Your task to perform on an android device: change notification settings in the gmail app Image 0: 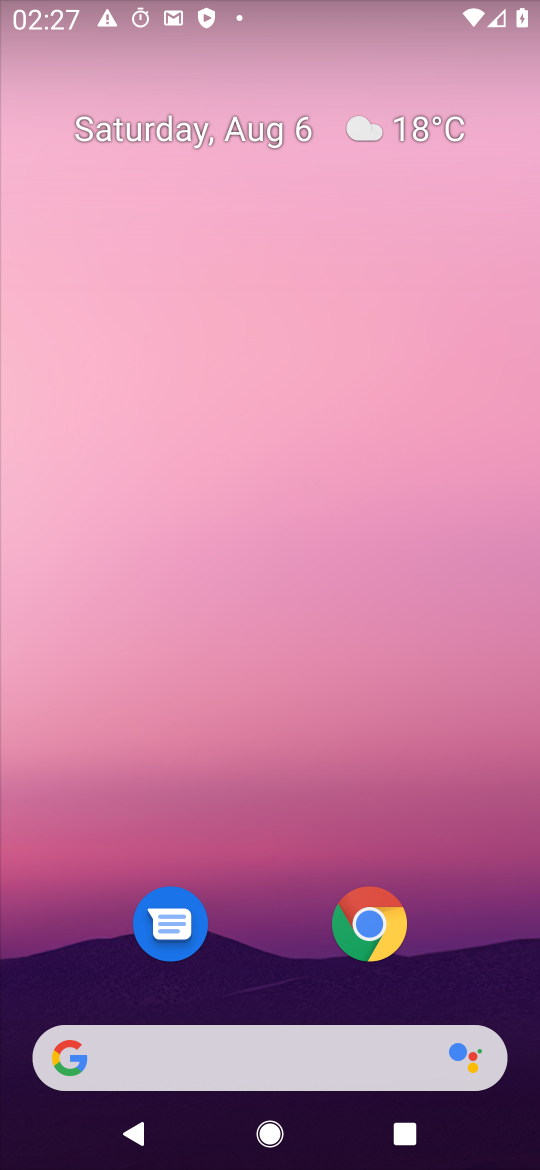
Step 0: click (247, 1042)
Your task to perform on an android device: change notification settings in the gmail app Image 1: 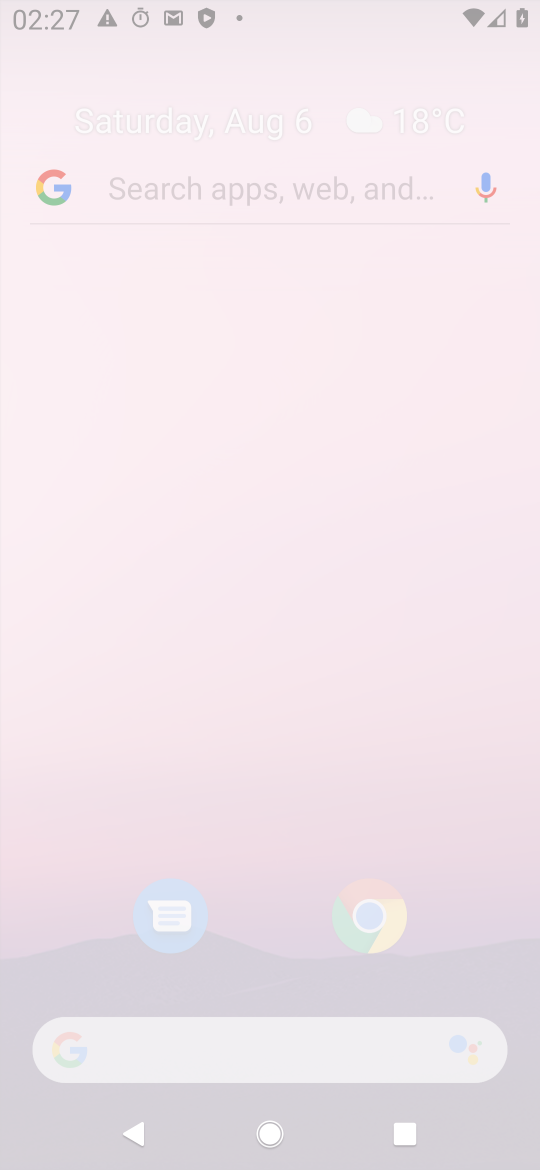
Step 1: drag from (362, 1045) to (203, 33)
Your task to perform on an android device: change notification settings in the gmail app Image 2: 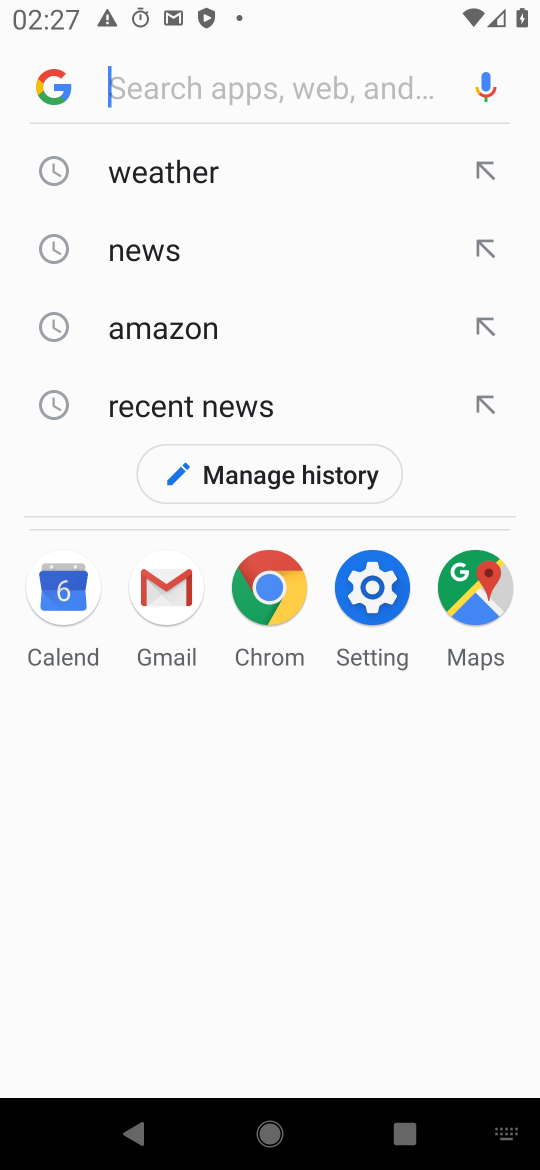
Step 2: press home button
Your task to perform on an android device: change notification settings in the gmail app Image 3: 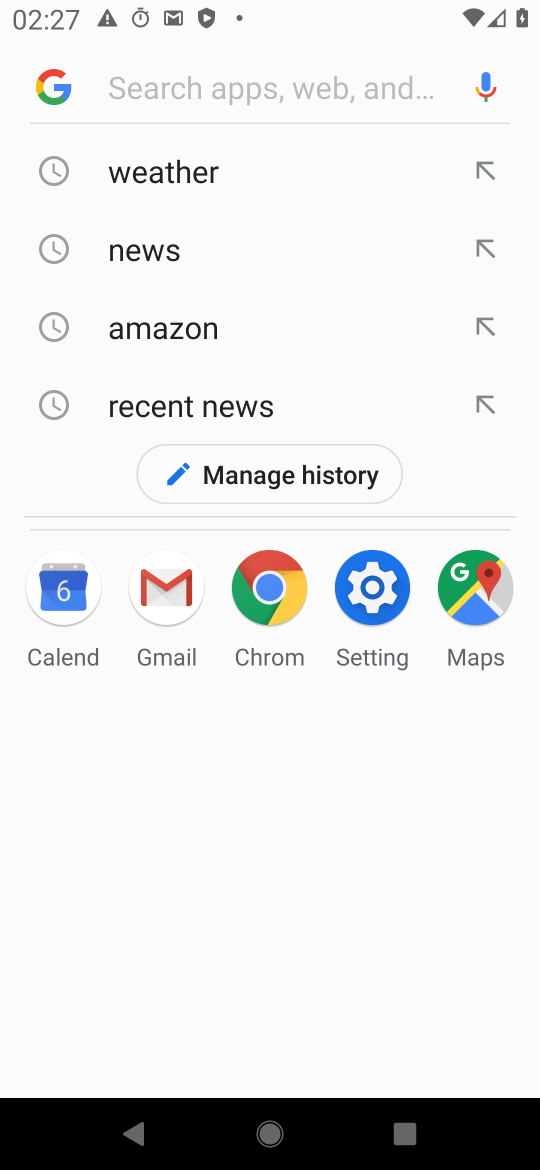
Step 3: drag from (203, 33) to (508, 713)
Your task to perform on an android device: change notification settings in the gmail app Image 4: 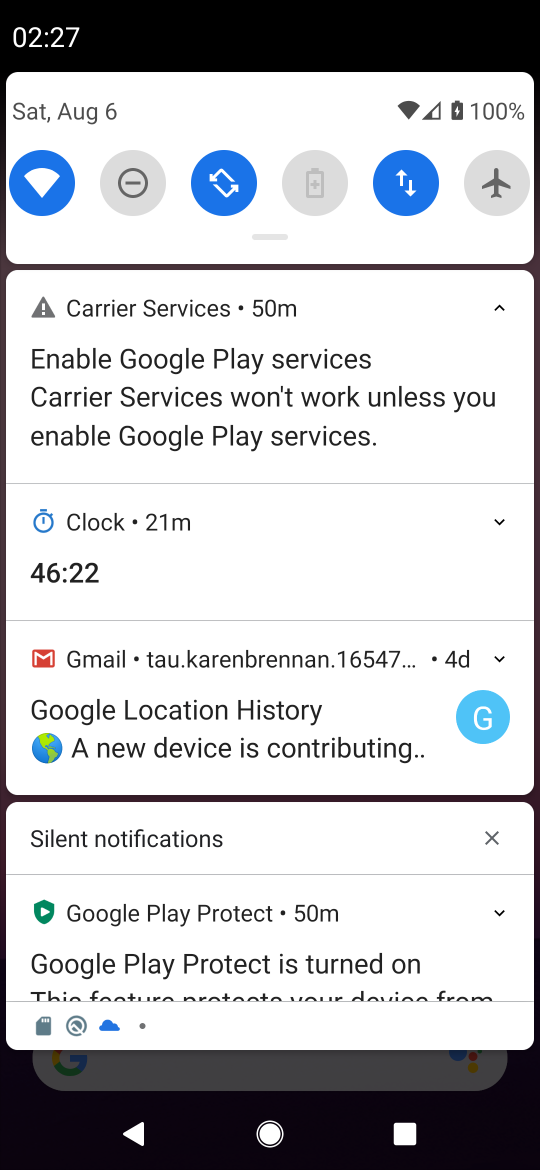
Step 4: press home button
Your task to perform on an android device: change notification settings in the gmail app Image 5: 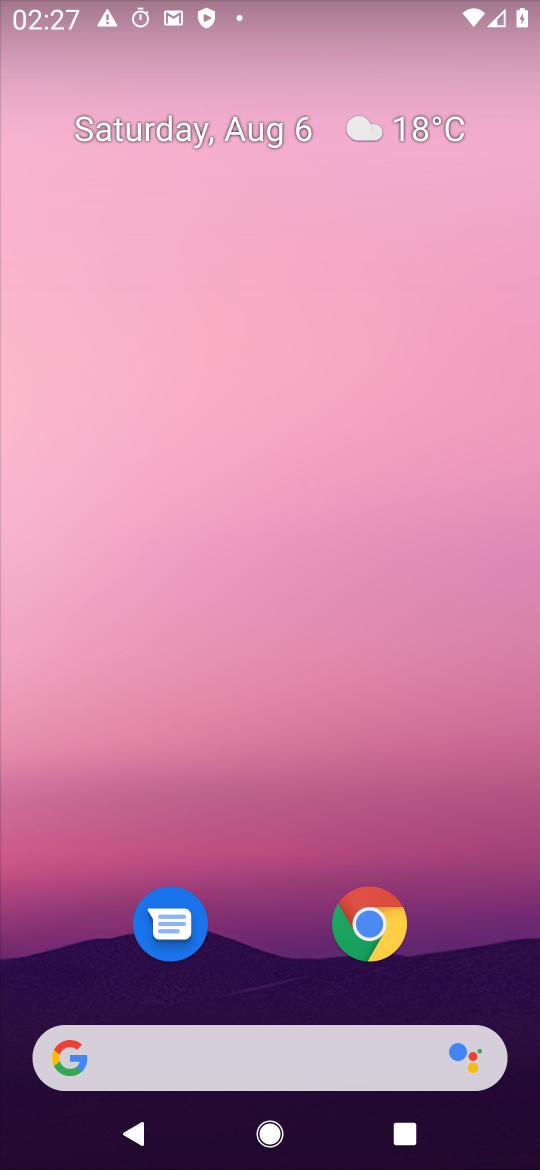
Step 5: drag from (332, 1067) to (342, 195)
Your task to perform on an android device: change notification settings in the gmail app Image 6: 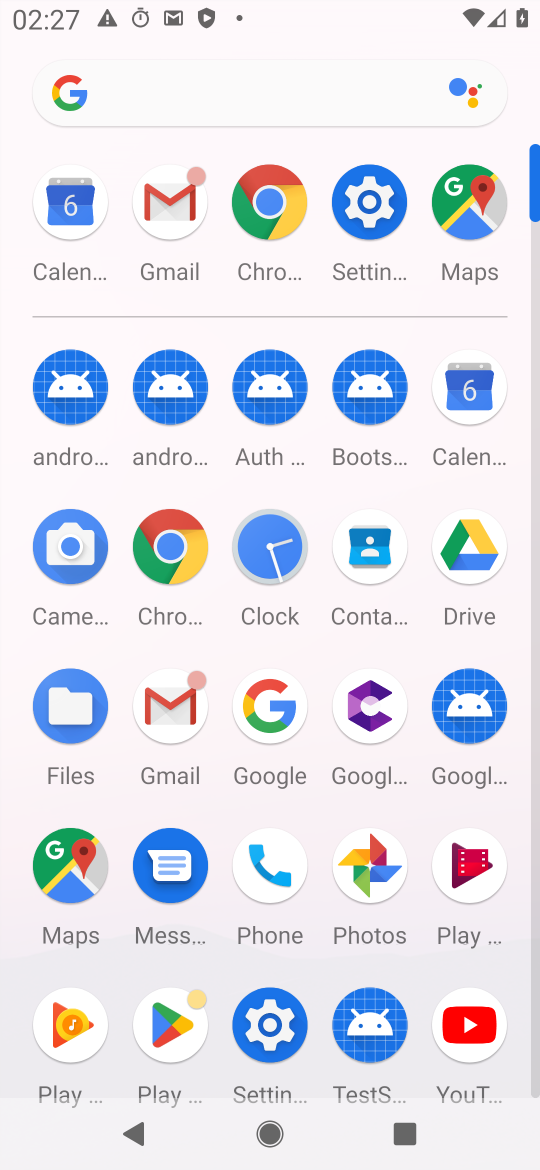
Step 6: click (170, 680)
Your task to perform on an android device: change notification settings in the gmail app Image 7: 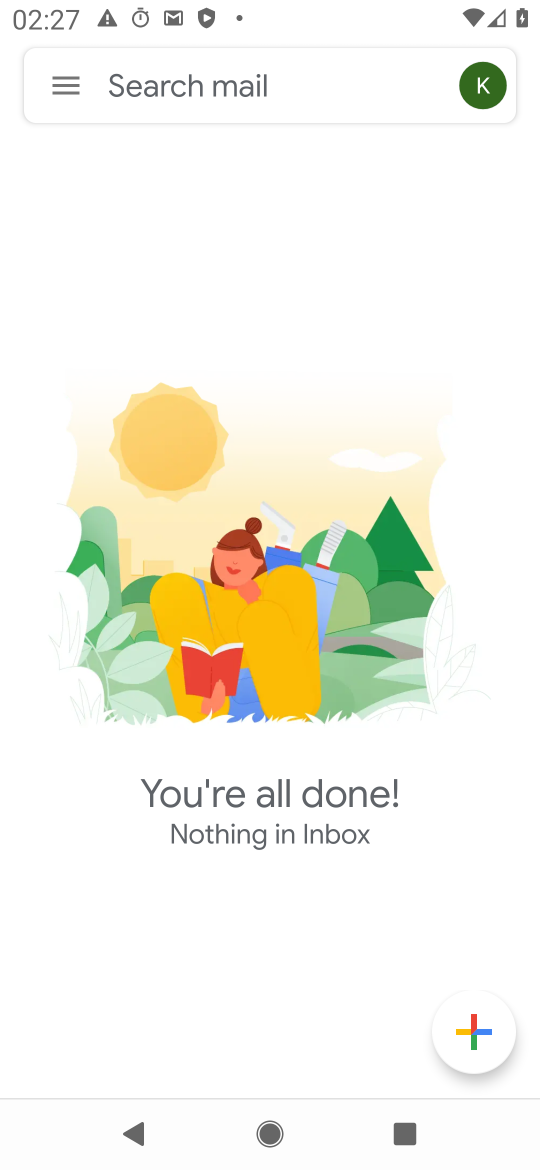
Step 7: click (33, 82)
Your task to perform on an android device: change notification settings in the gmail app Image 8: 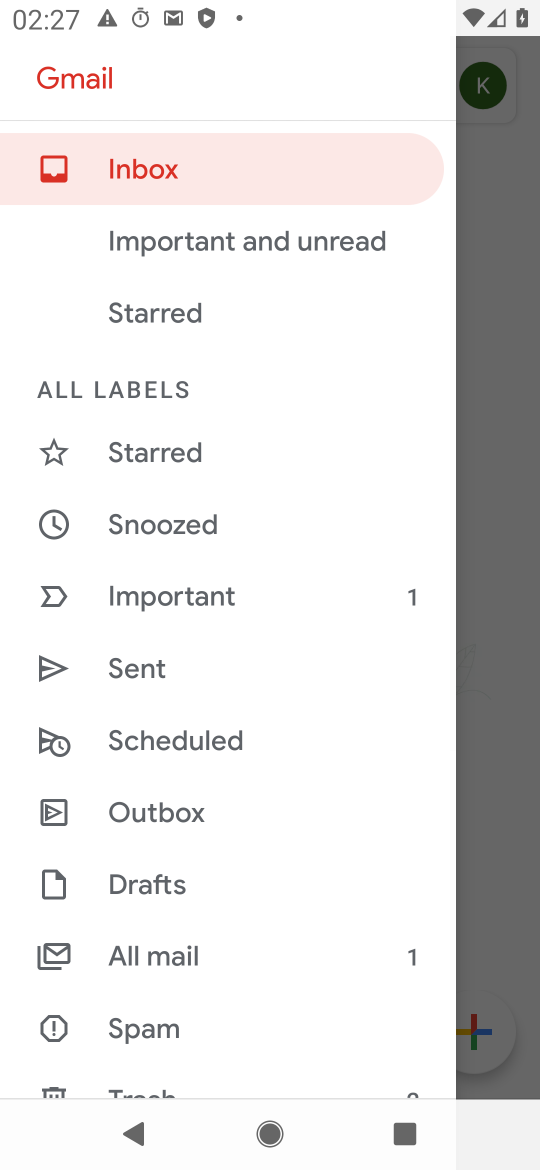
Step 8: drag from (314, 939) to (309, 26)
Your task to perform on an android device: change notification settings in the gmail app Image 9: 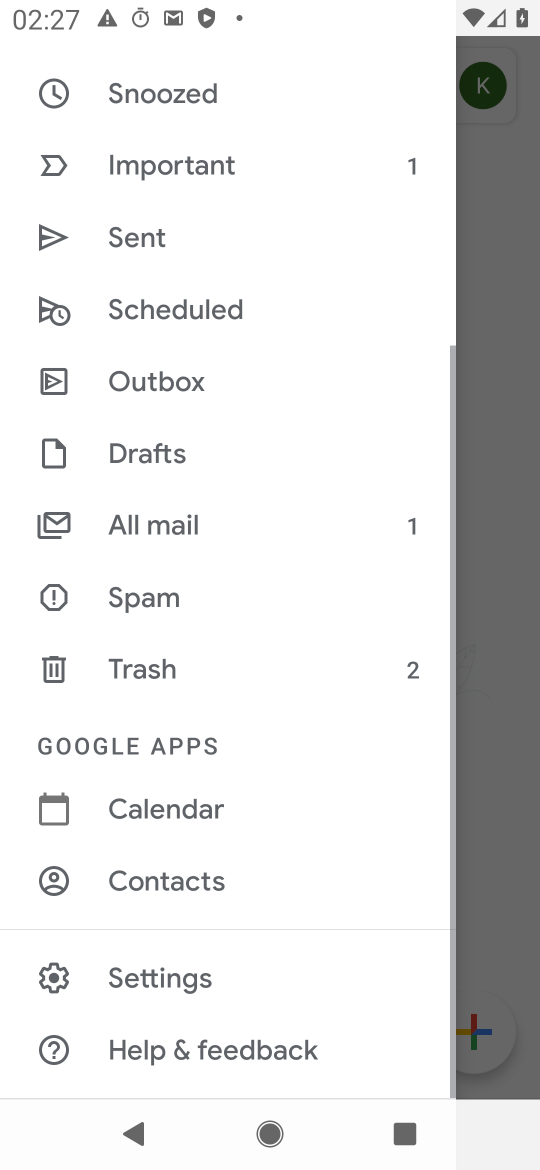
Step 9: click (244, 970)
Your task to perform on an android device: change notification settings in the gmail app Image 10: 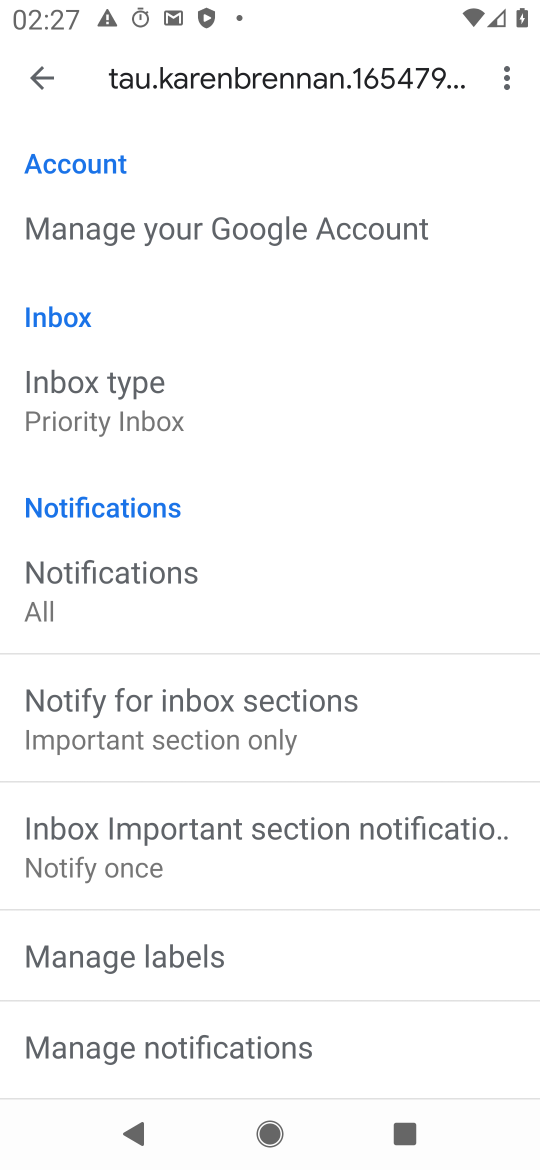
Step 10: click (229, 1027)
Your task to perform on an android device: change notification settings in the gmail app Image 11: 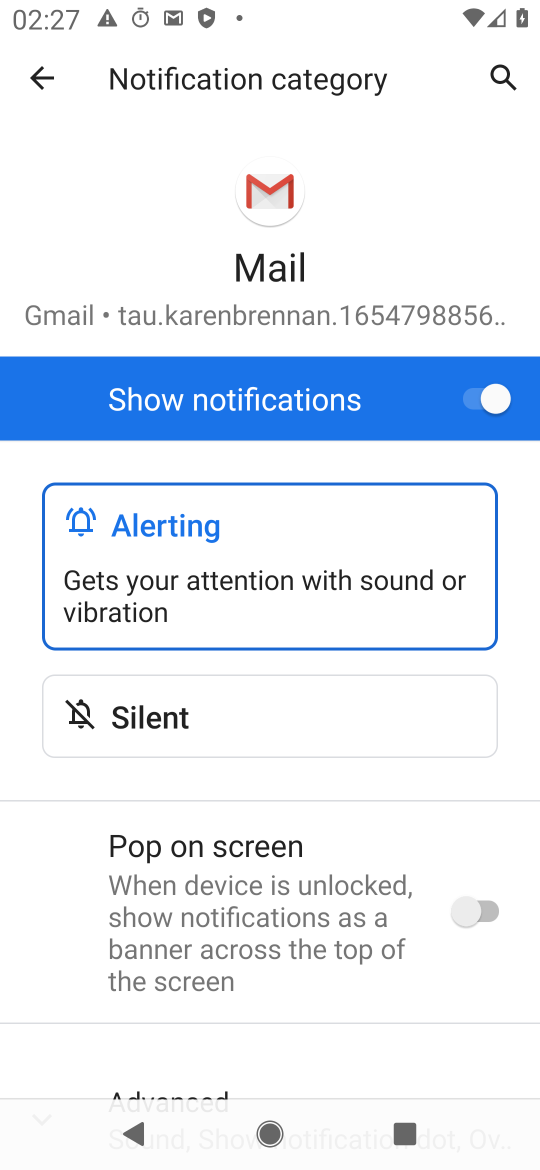
Step 11: click (491, 406)
Your task to perform on an android device: change notification settings in the gmail app Image 12: 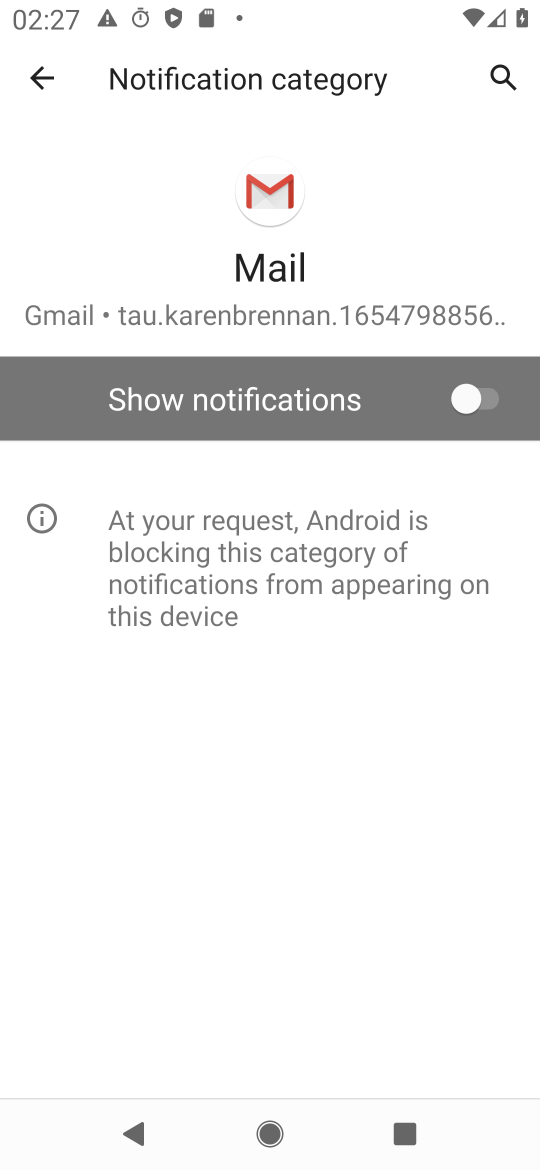
Step 12: task complete